Your task to perform on an android device: star an email in the gmail app Image 0: 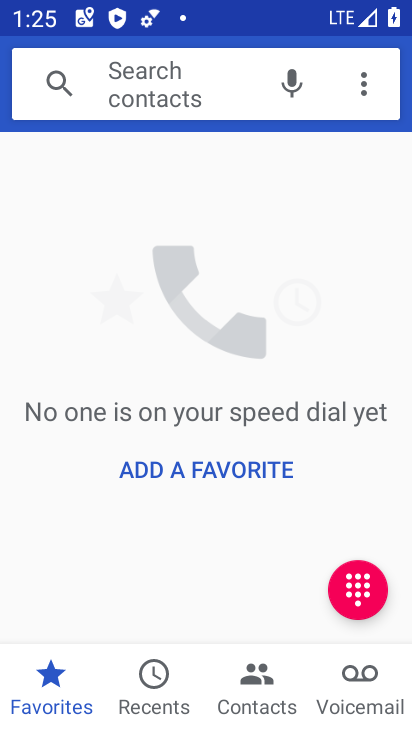
Step 0: press home button
Your task to perform on an android device: star an email in the gmail app Image 1: 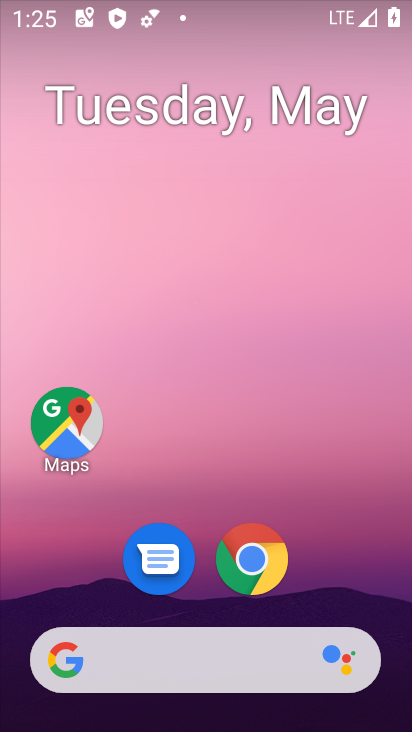
Step 1: drag from (313, 478) to (212, 32)
Your task to perform on an android device: star an email in the gmail app Image 2: 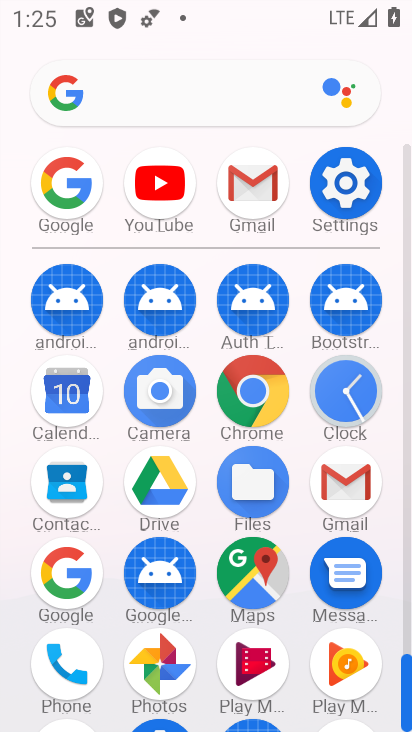
Step 2: click (243, 185)
Your task to perform on an android device: star an email in the gmail app Image 3: 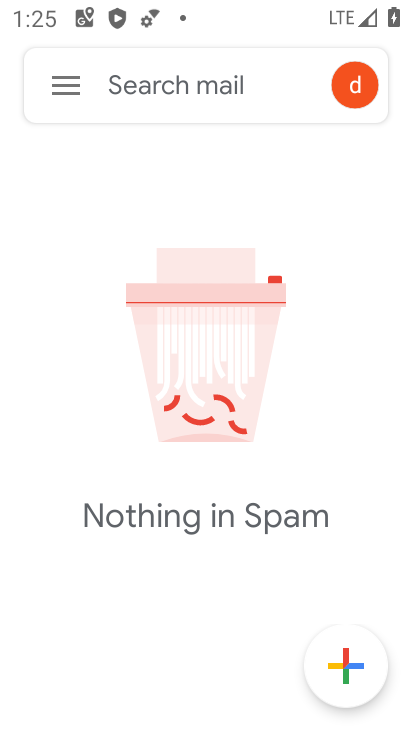
Step 3: click (63, 85)
Your task to perform on an android device: star an email in the gmail app Image 4: 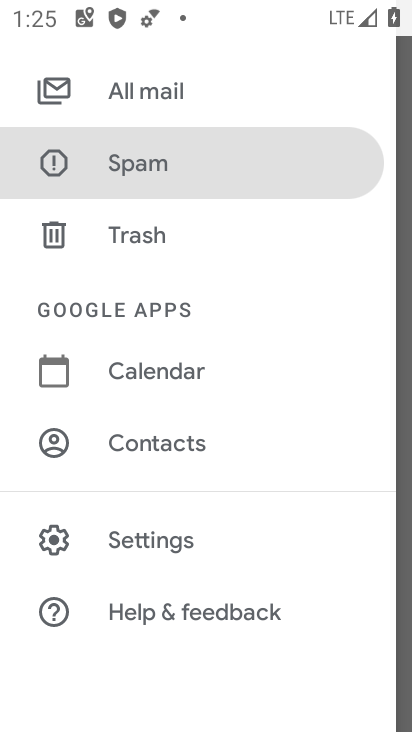
Step 4: click (177, 94)
Your task to perform on an android device: star an email in the gmail app Image 5: 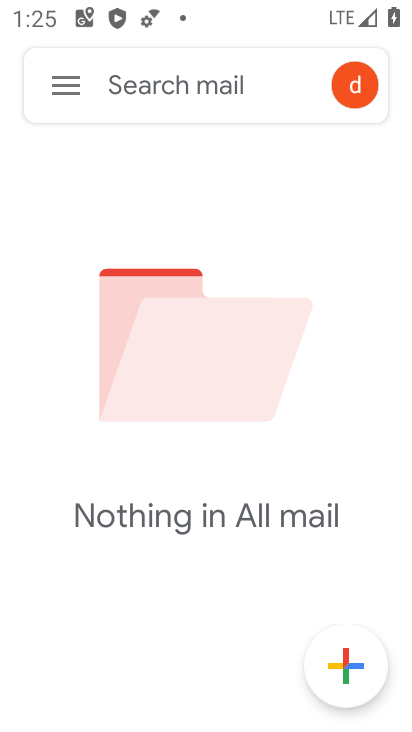
Step 5: task complete